Your task to perform on an android device: When is my next appointment? Image 0: 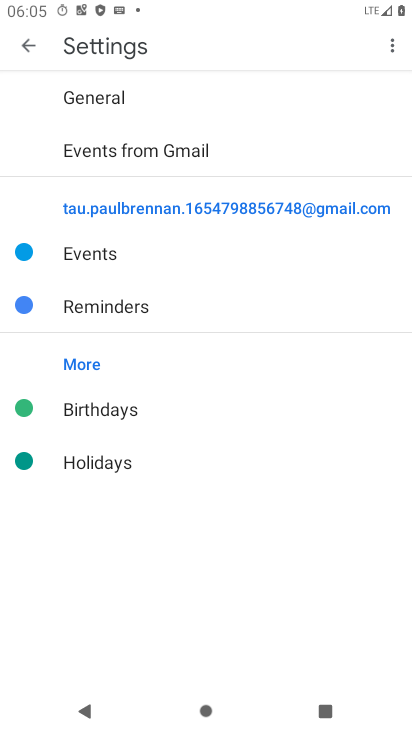
Step 0: press home button
Your task to perform on an android device: When is my next appointment? Image 1: 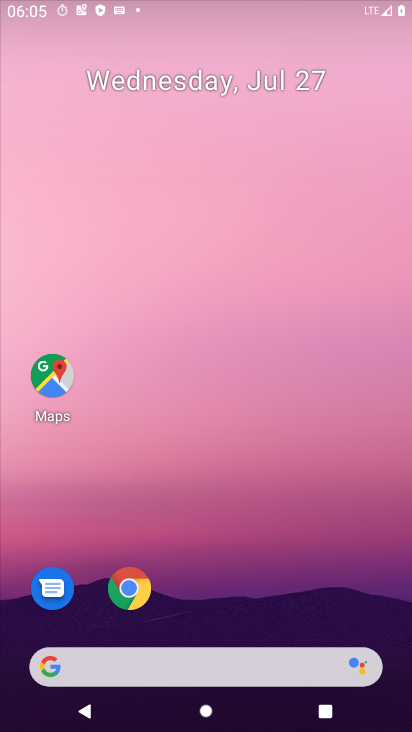
Step 1: drag from (253, 677) to (199, 29)
Your task to perform on an android device: When is my next appointment? Image 2: 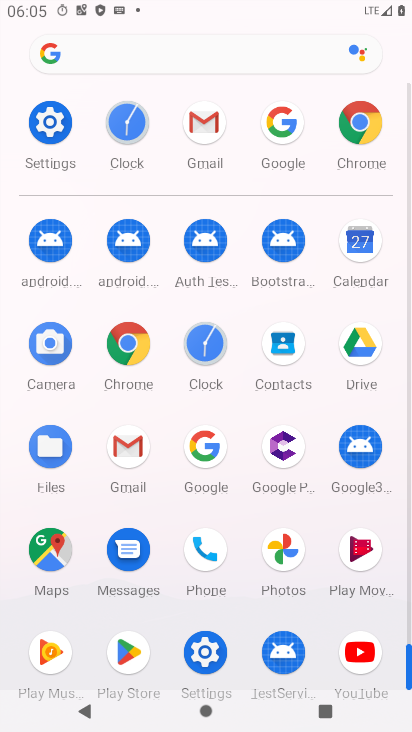
Step 2: click (366, 239)
Your task to perform on an android device: When is my next appointment? Image 3: 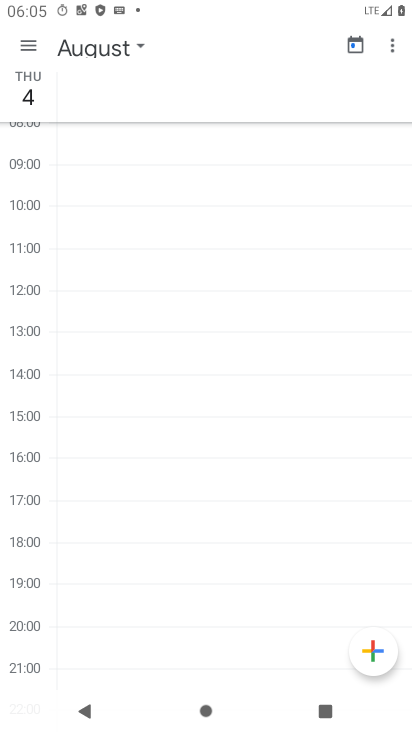
Step 3: click (128, 43)
Your task to perform on an android device: When is my next appointment? Image 4: 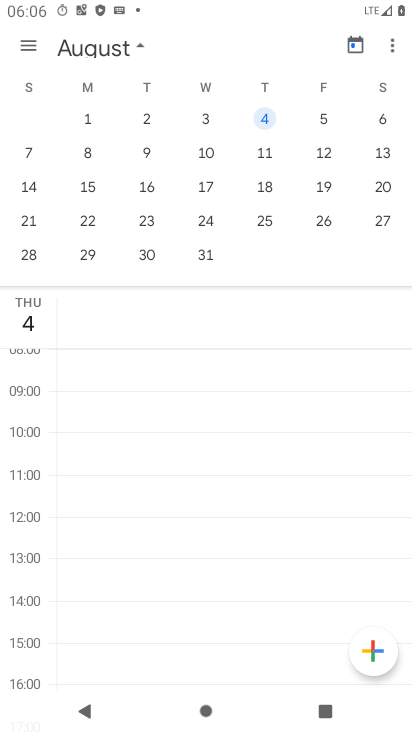
Step 4: drag from (64, 180) to (356, 186)
Your task to perform on an android device: When is my next appointment? Image 5: 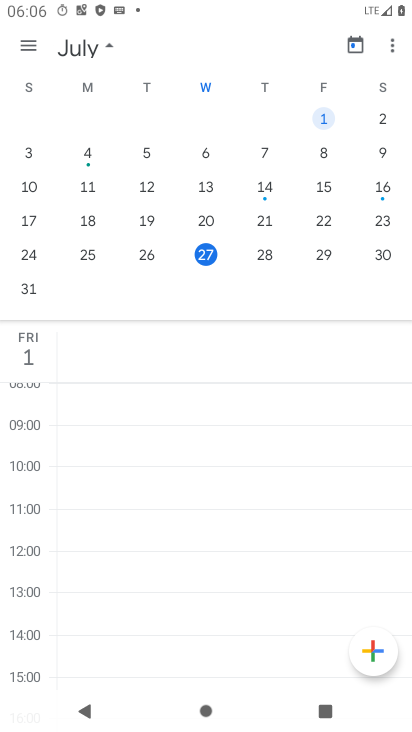
Step 5: click (143, 254)
Your task to perform on an android device: When is my next appointment? Image 6: 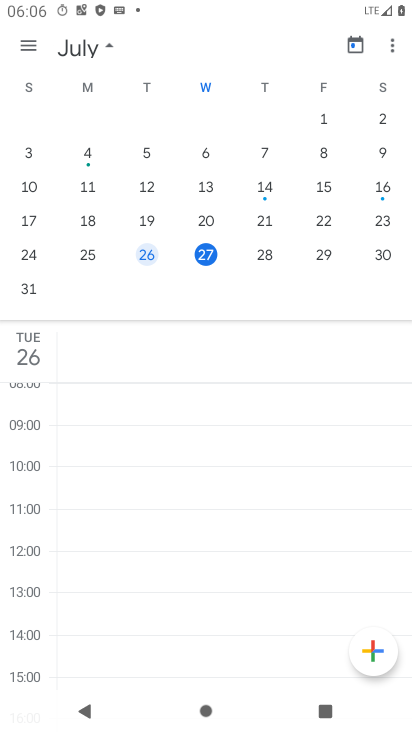
Step 6: task complete